Your task to perform on an android device: What's the news in Brunei? Image 0: 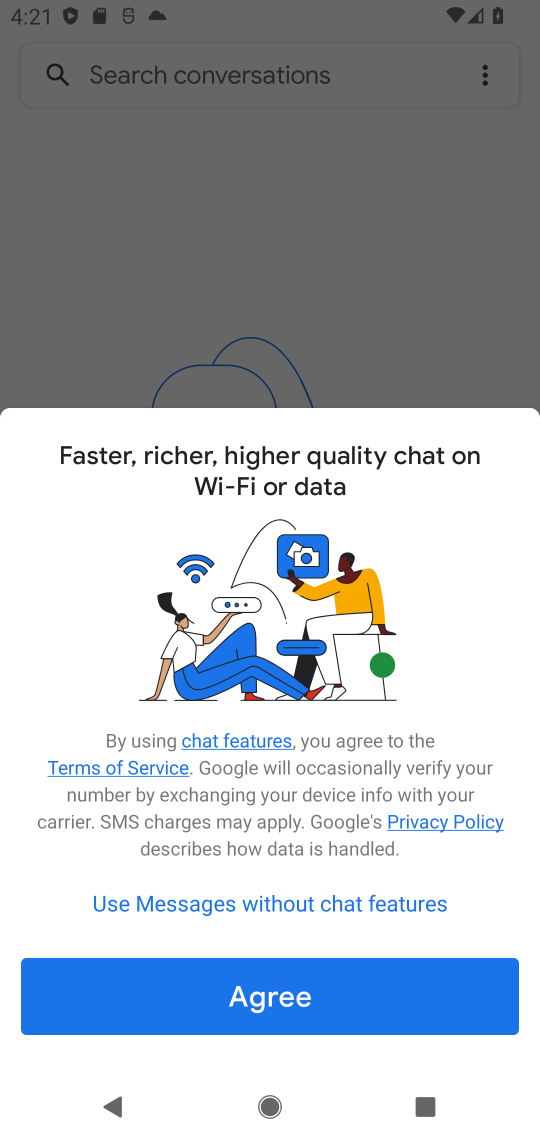
Step 0: press home button
Your task to perform on an android device: What's the news in Brunei? Image 1: 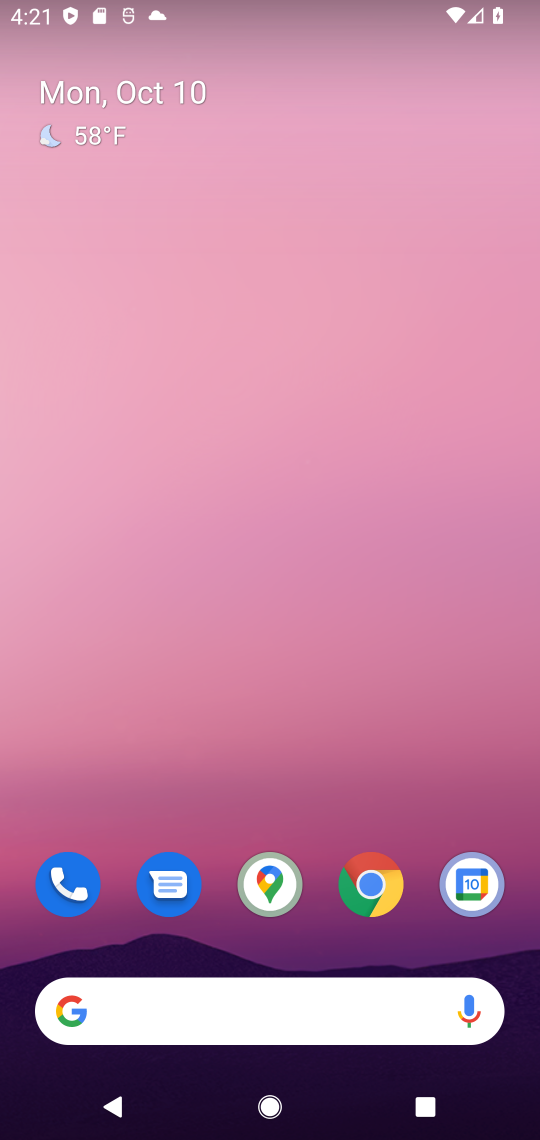
Step 1: click (377, 891)
Your task to perform on an android device: What's the news in Brunei? Image 2: 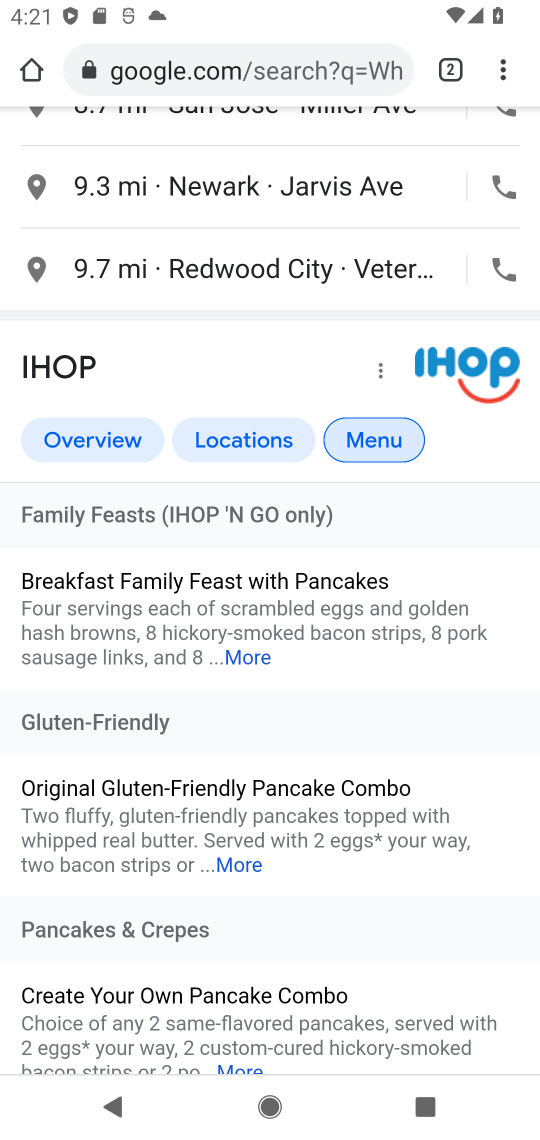
Step 2: click (296, 71)
Your task to perform on an android device: What's the news in Brunei? Image 3: 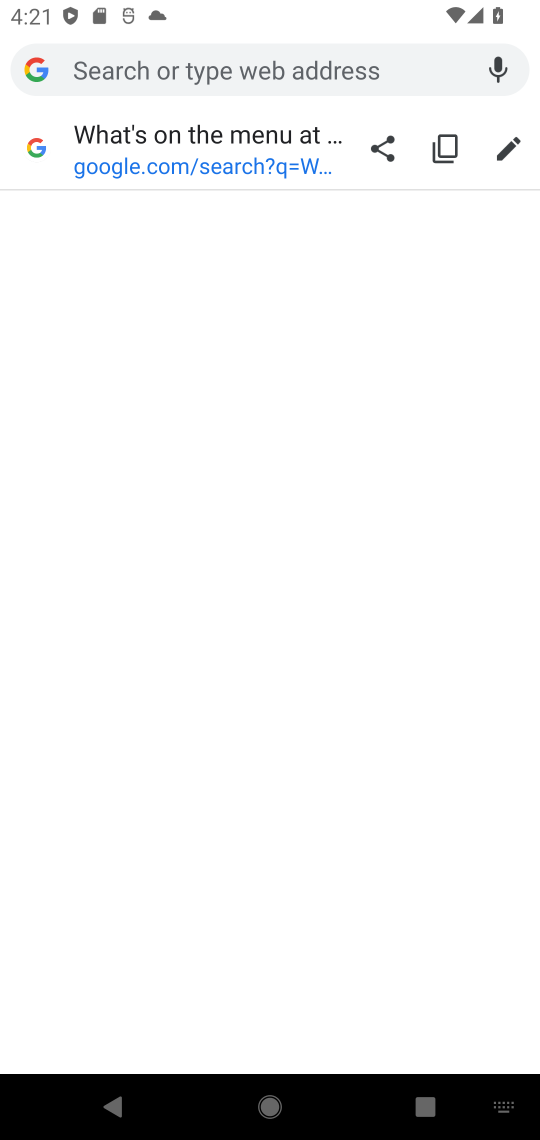
Step 3: type "What's the news in Brunei?"
Your task to perform on an android device: What's the news in Brunei? Image 4: 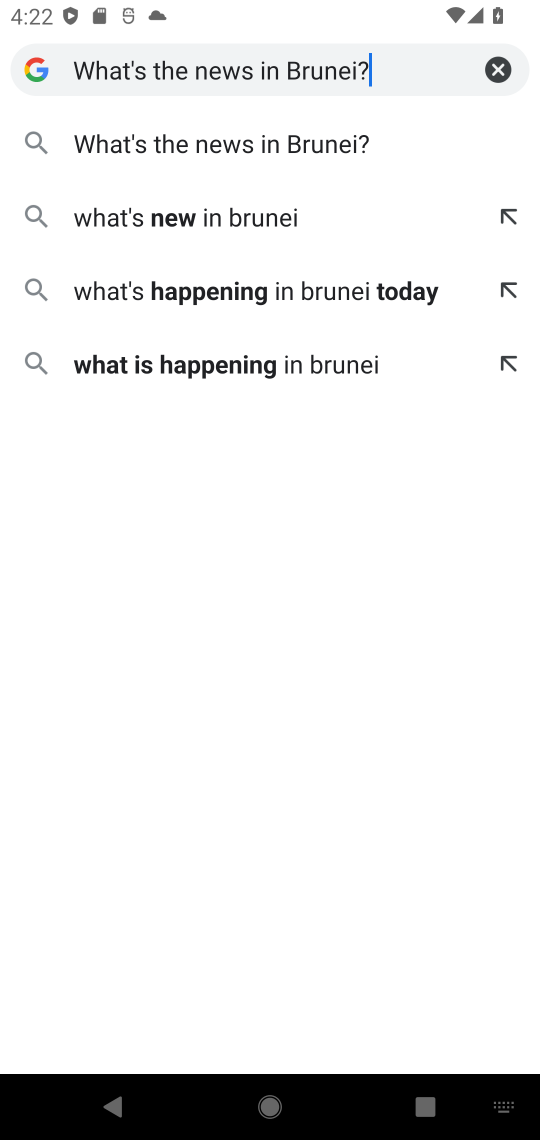
Step 4: click (244, 147)
Your task to perform on an android device: What's the news in Brunei? Image 5: 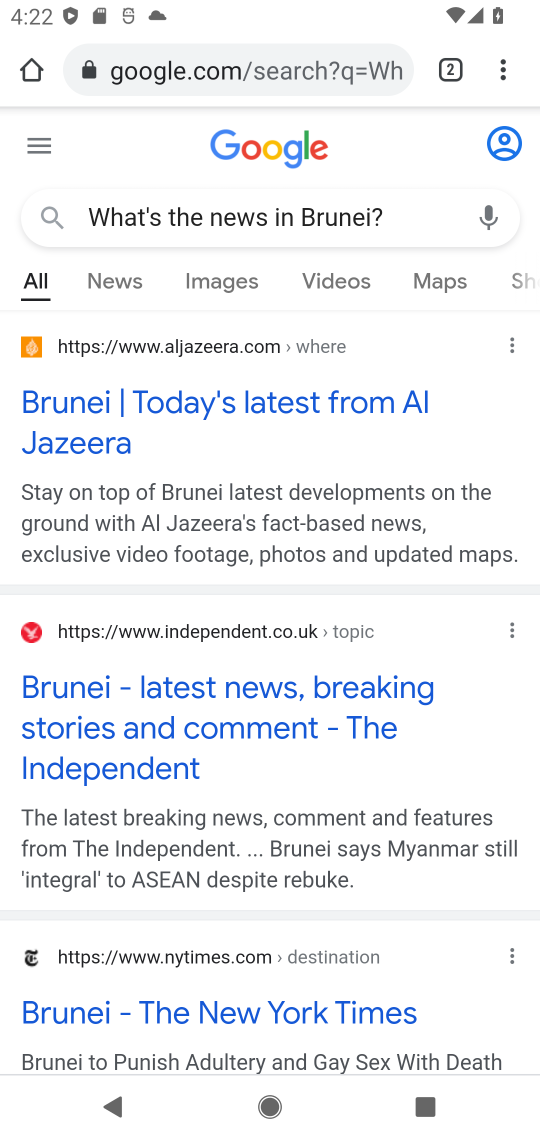
Step 5: click (162, 694)
Your task to perform on an android device: What's the news in Brunei? Image 6: 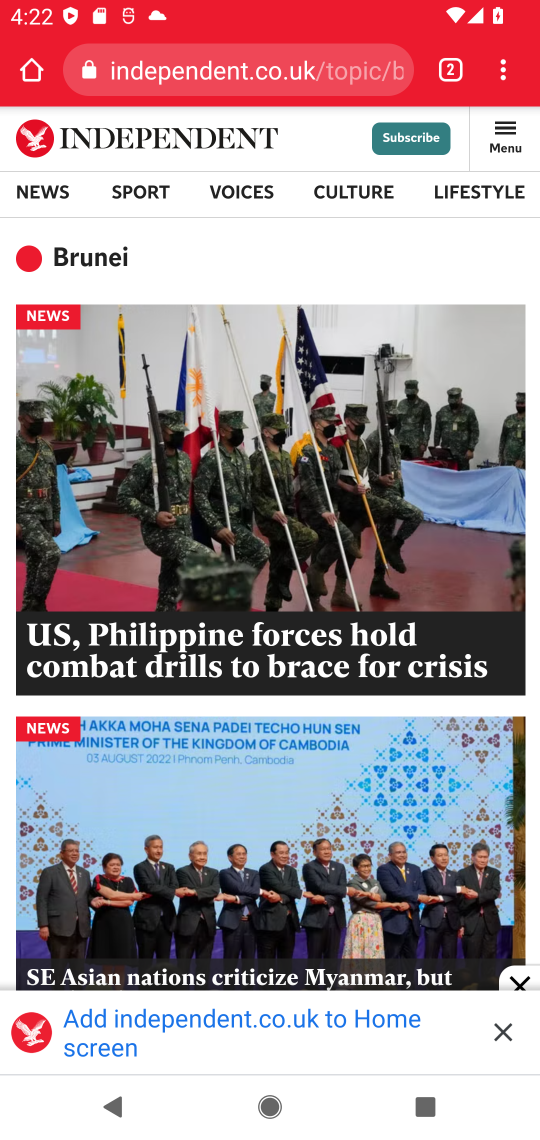
Step 6: task complete